Your task to perform on an android device: What's on my calendar today? Image 0: 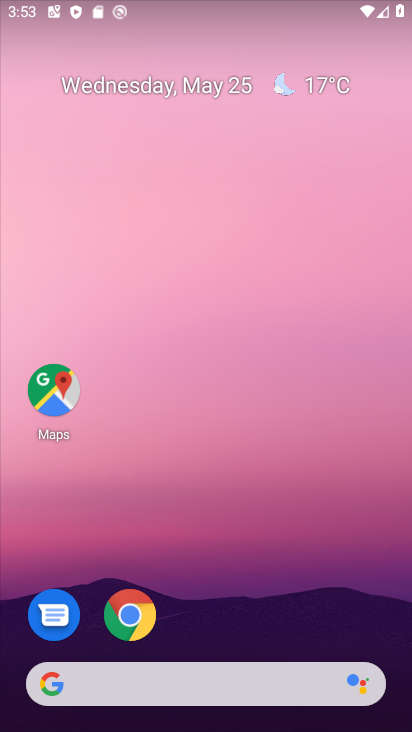
Step 0: drag from (218, 605) to (271, 11)
Your task to perform on an android device: What's on my calendar today? Image 1: 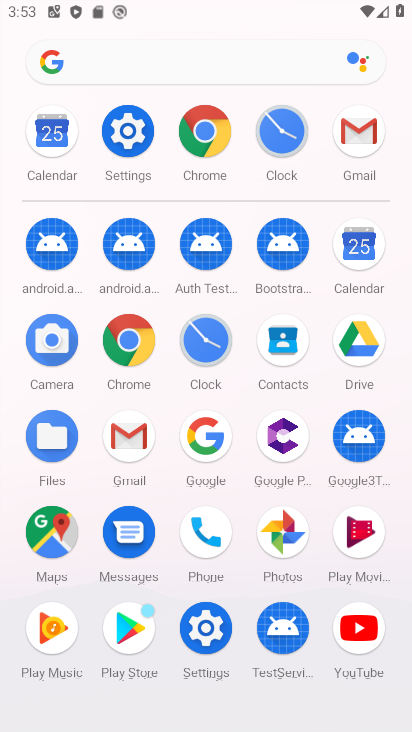
Step 1: click (353, 230)
Your task to perform on an android device: What's on my calendar today? Image 2: 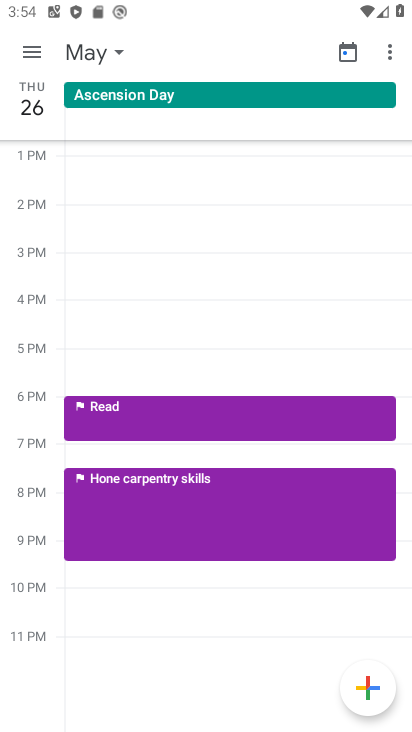
Step 2: click (107, 50)
Your task to perform on an android device: What's on my calendar today? Image 3: 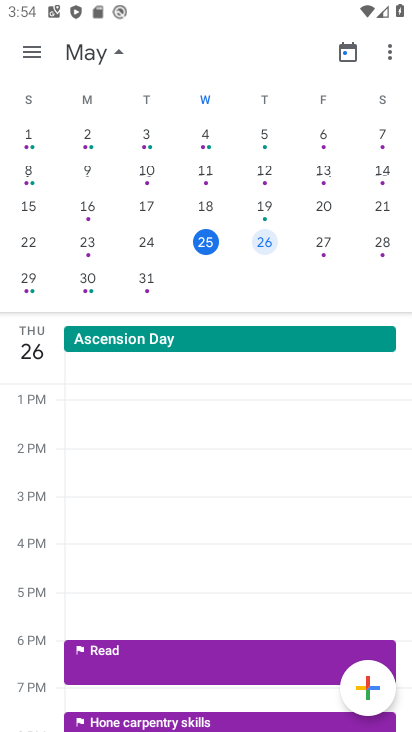
Step 3: click (208, 235)
Your task to perform on an android device: What's on my calendar today? Image 4: 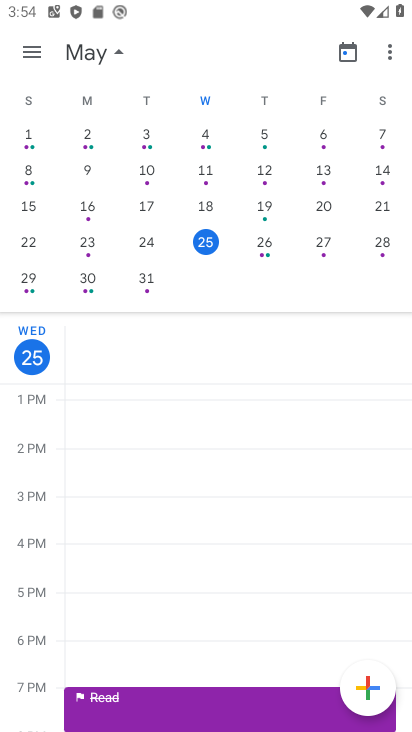
Step 4: task complete